Your task to perform on an android device: Go to Google maps Image 0: 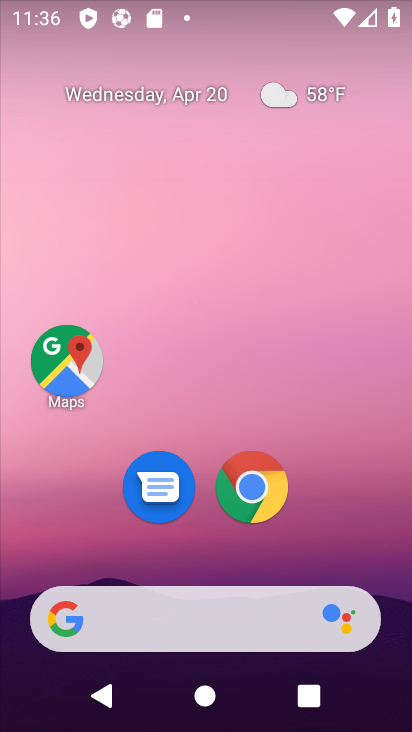
Step 0: click (62, 366)
Your task to perform on an android device: Go to Google maps Image 1: 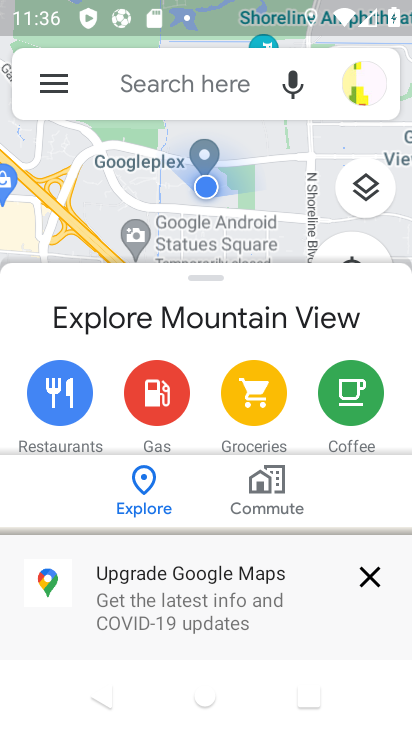
Step 1: task complete